Your task to perform on an android device: Open Amazon Image 0: 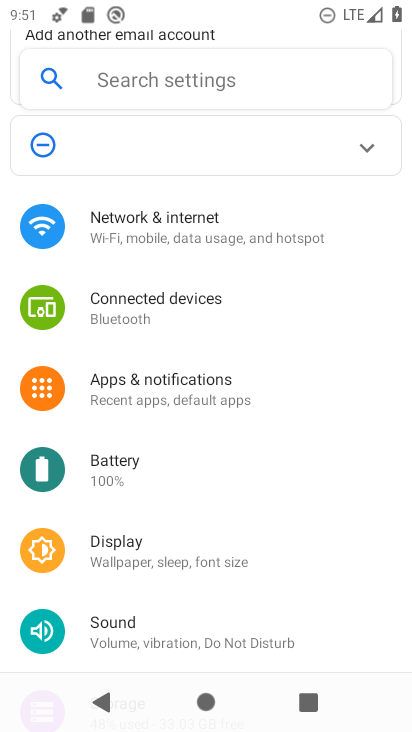
Step 0: press home button
Your task to perform on an android device: Open Amazon Image 1: 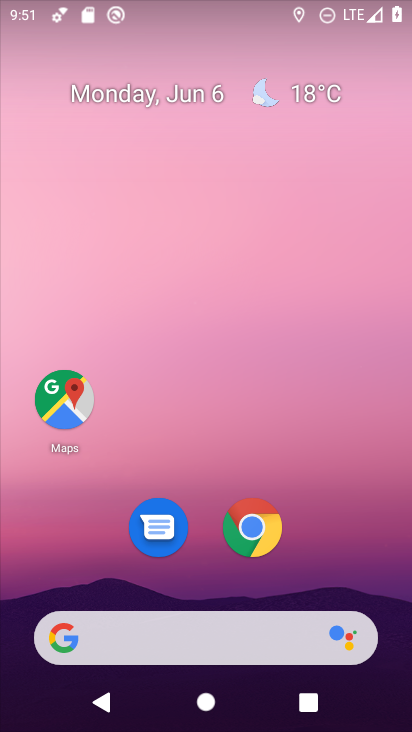
Step 1: drag from (370, 562) to (376, 122)
Your task to perform on an android device: Open Amazon Image 2: 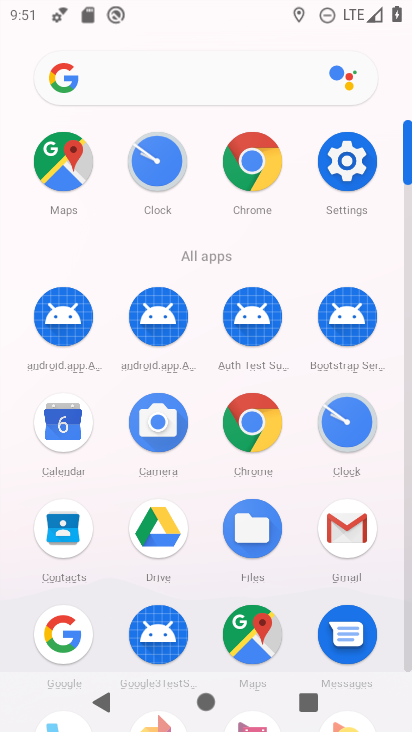
Step 2: click (259, 416)
Your task to perform on an android device: Open Amazon Image 3: 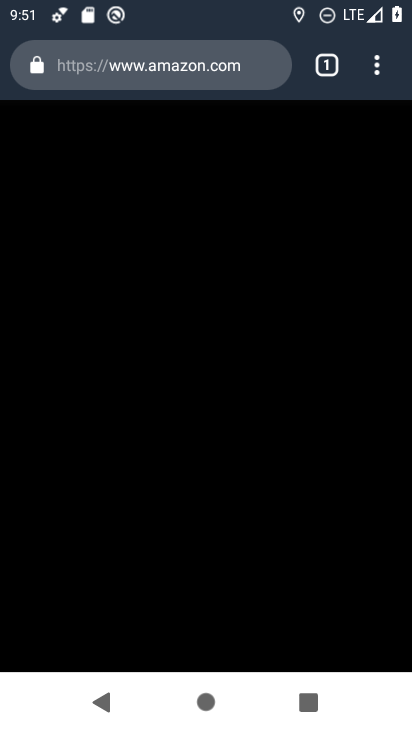
Step 3: click (260, 69)
Your task to perform on an android device: Open Amazon Image 4: 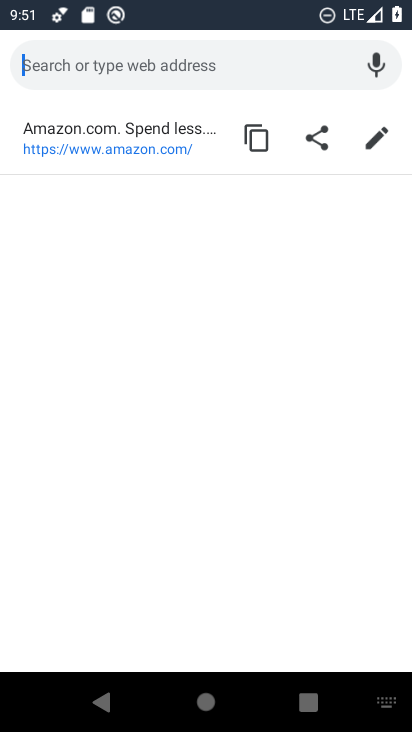
Step 4: click (229, 71)
Your task to perform on an android device: Open Amazon Image 5: 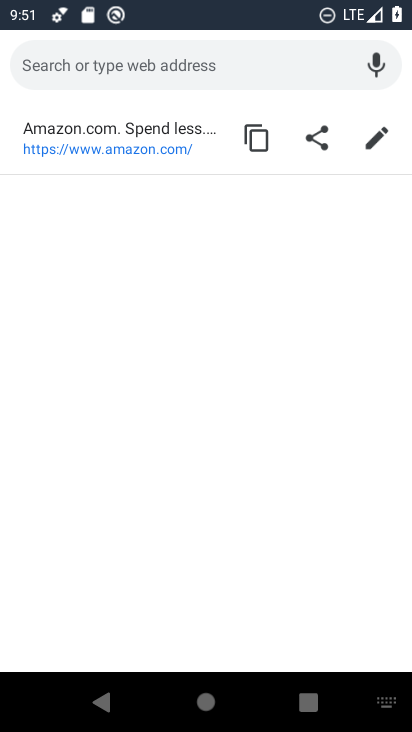
Step 5: type "amazon"
Your task to perform on an android device: Open Amazon Image 6: 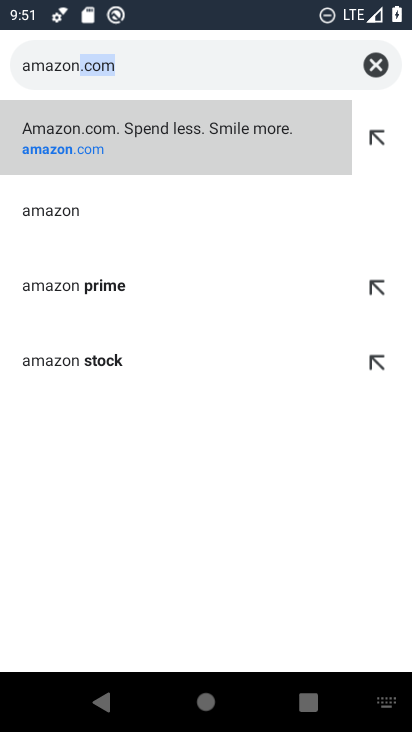
Step 6: click (181, 146)
Your task to perform on an android device: Open Amazon Image 7: 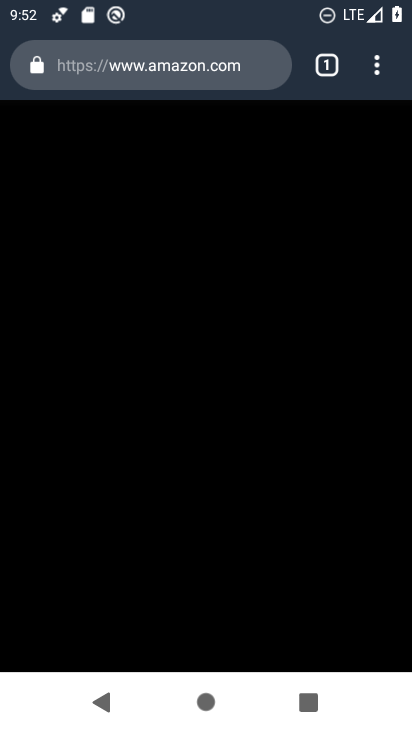
Step 7: task complete